Your task to perform on an android device: Open Chrome and go to the settings page Image 0: 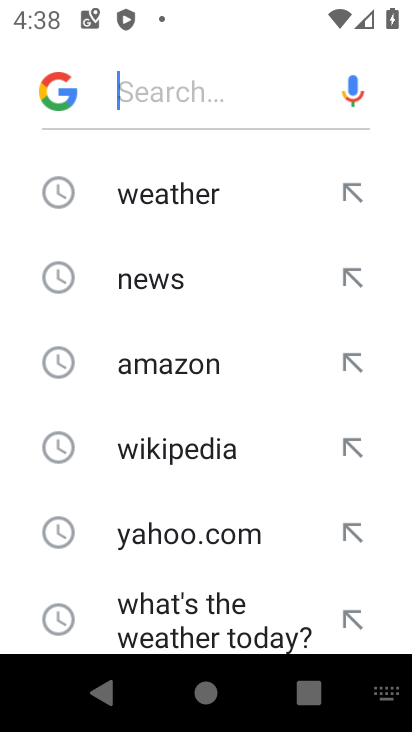
Step 0: press home button
Your task to perform on an android device: Open Chrome and go to the settings page Image 1: 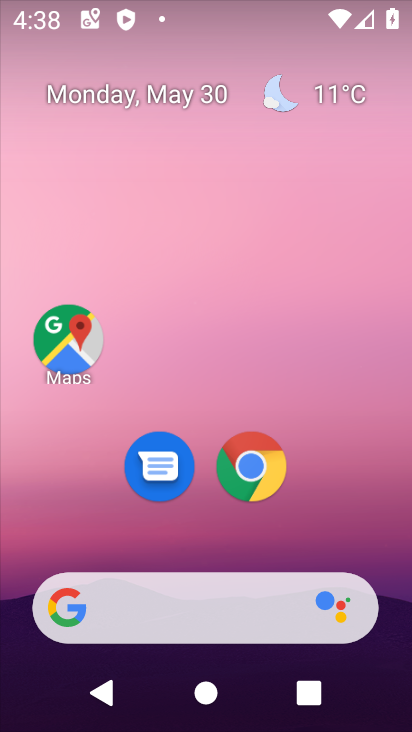
Step 1: click (255, 463)
Your task to perform on an android device: Open Chrome and go to the settings page Image 2: 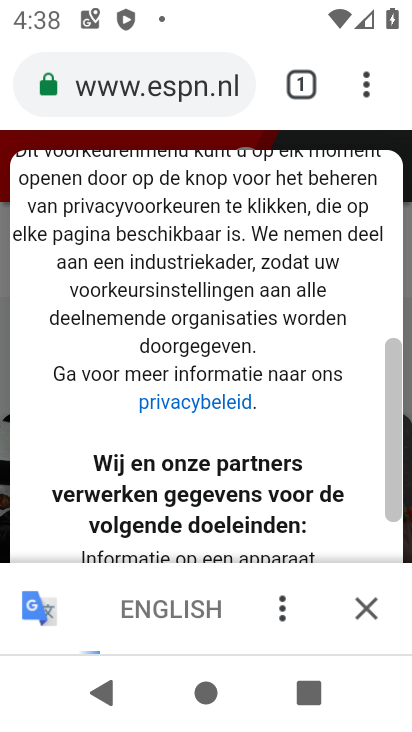
Step 2: click (368, 86)
Your task to perform on an android device: Open Chrome and go to the settings page Image 3: 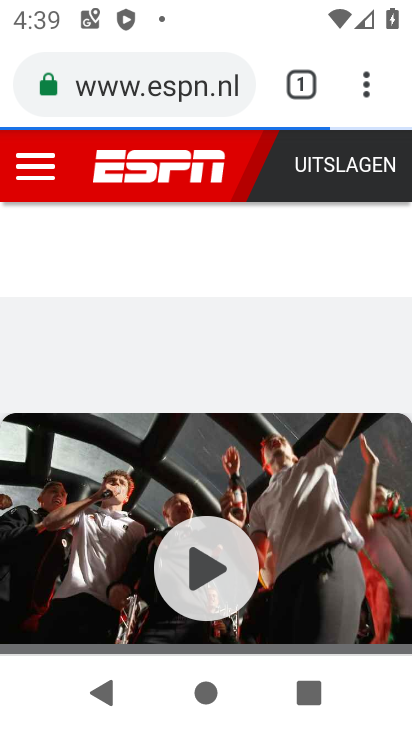
Step 3: task complete